Your task to perform on an android device: remove spam from my inbox in the gmail app Image 0: 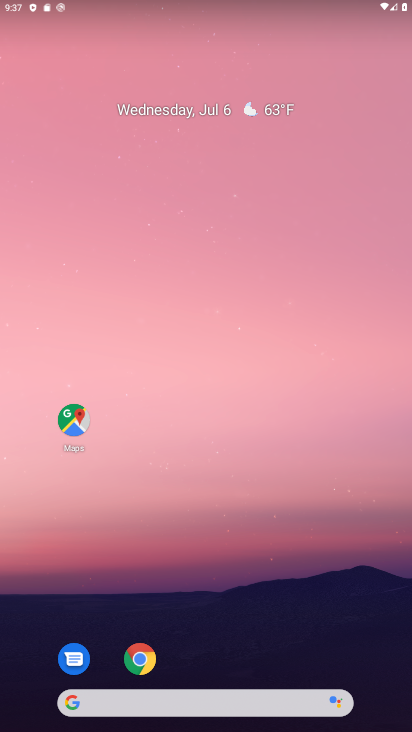
Step 0: drag from (215, 563) to (391, 197)
Your task to perform on an android device: remove spam from my inbox in the gmail app Image 1: 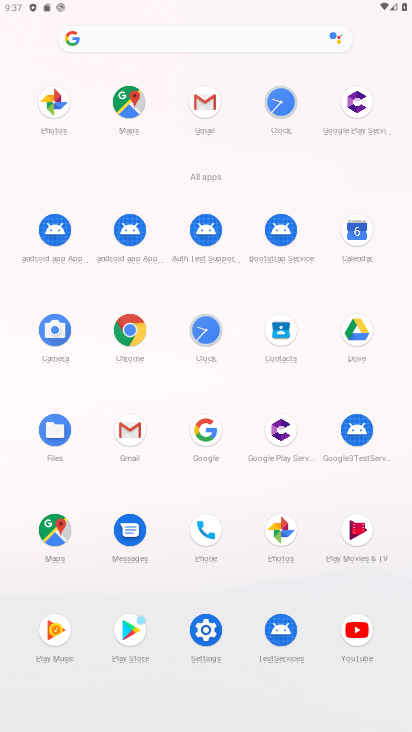
Step 1: click (141, 425)
Your task to perform on an android device: remove spam from my inbox in the gmail app Image 2: 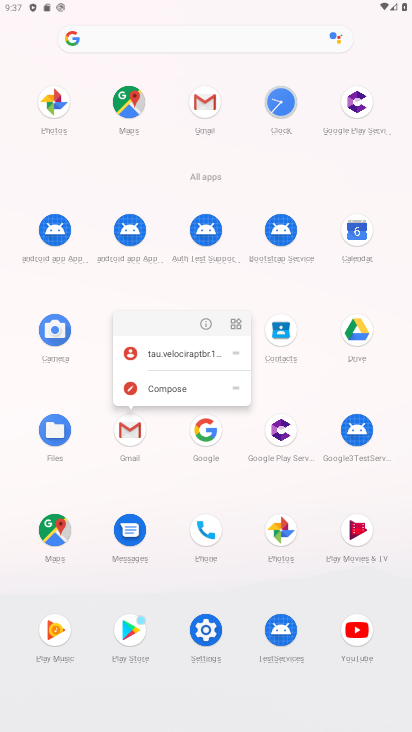
Step 2: click (199, 326)
Your task to perform on an android device: remove spam from my inbox in the gmail app Image 3: 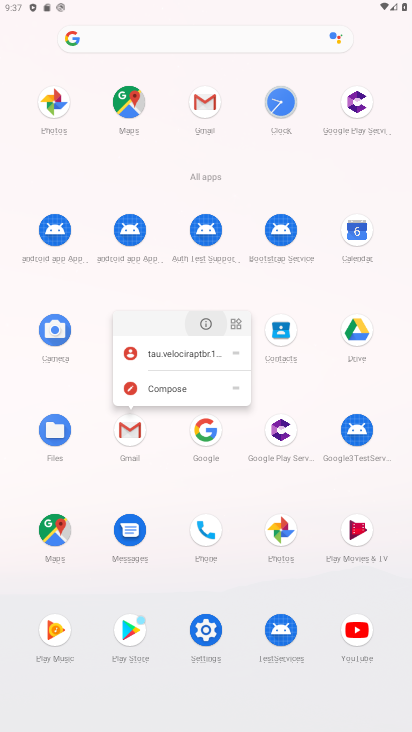
Step 3: click (199, 326)
Your task to perform on an android device: remove spam from my inbox in the gmail app Image 4: 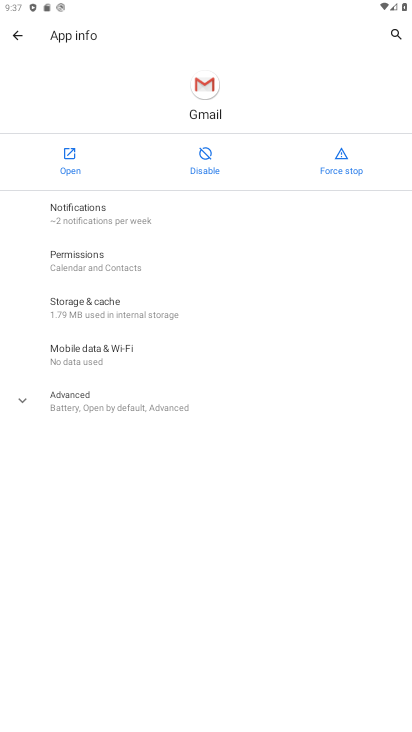
Step 4: click (60, 156)
Your task to perform on an android device: remove spam from my inbox in the gmail app Image 5: 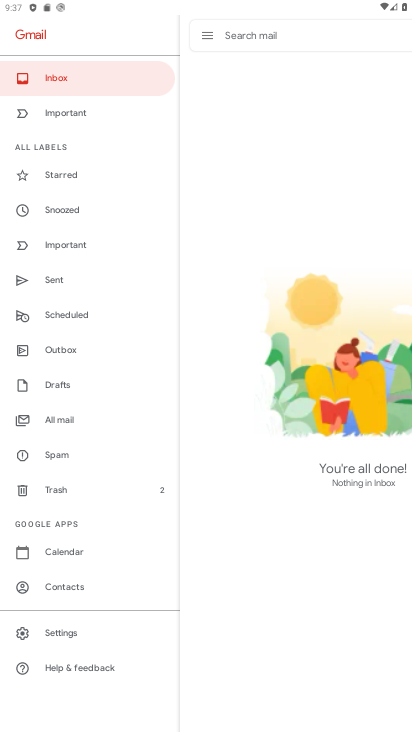
Step 5: drag from (83, 528) to (131, 150)
Your task to perform on an android device: remove spam from my inbox in the gmail app Image 6: 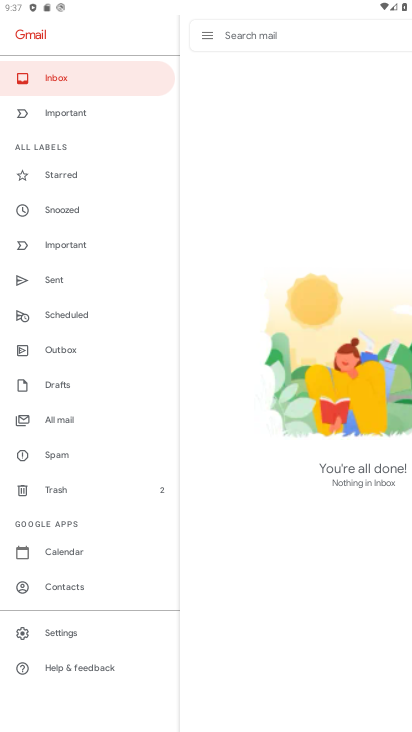
Step 6: click (69, 452)
Your task to perform on an android device: remove spam from my inbox in the gmail app Image 7: 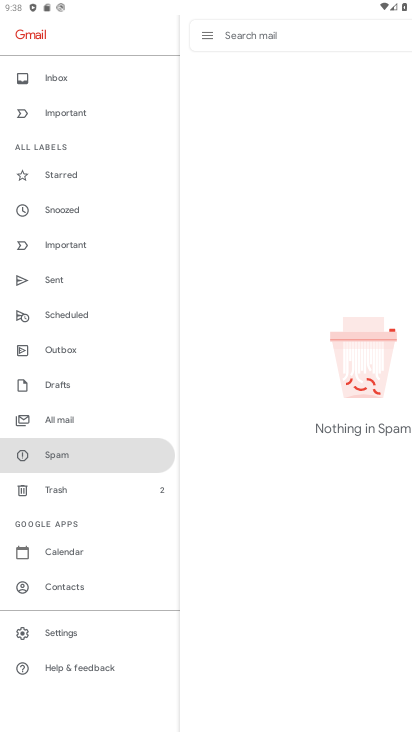
Step 7: task complete